Your task to perform on an android device: delete browsing data in the chrome app Image 0: 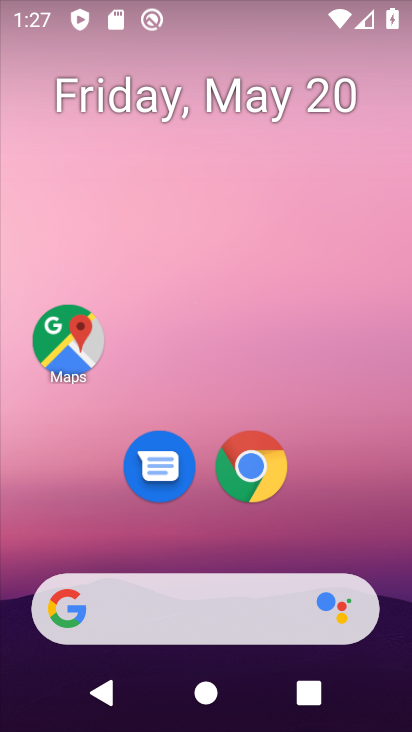
Step 0: drag from (231, 551) to (197, 3)
Your task to perform on an android device: delete browsing data in the chrome app Image 1: 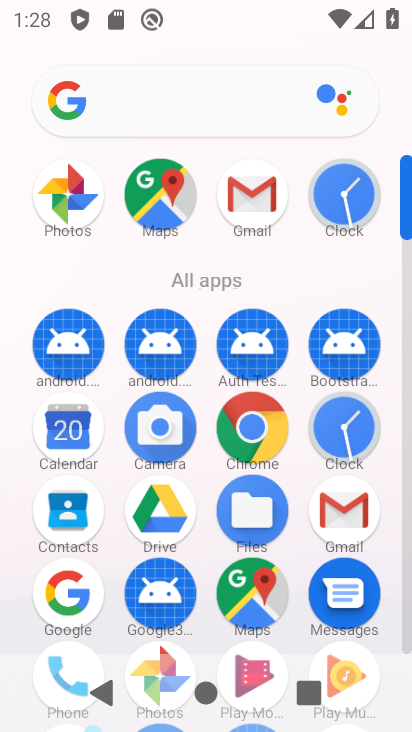
Step 1: click (251, 458)
Your task to perform on an android device: delete browsing data in the chrome app Image 2: 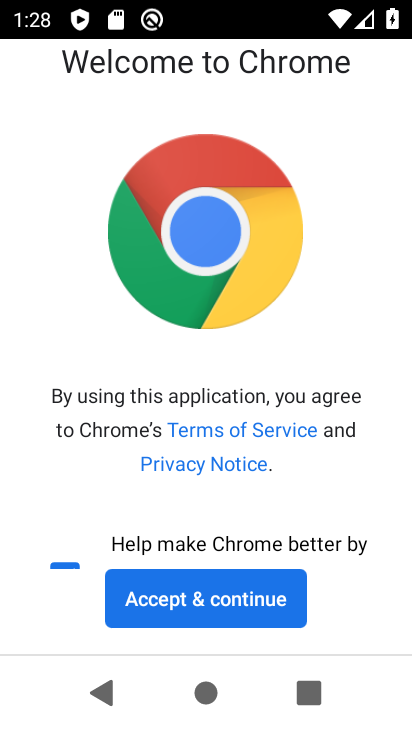
Step 2: click (200, 580)
Your task to perform on an android device: delete browsing data in the chrome app Image 3: 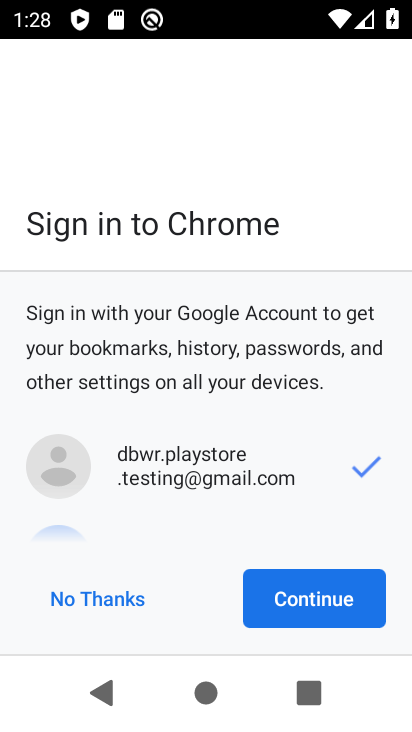
Step 3: click (290, 611)
Your task to perform on an android device: delete browsing data in the chrome app Image 4: 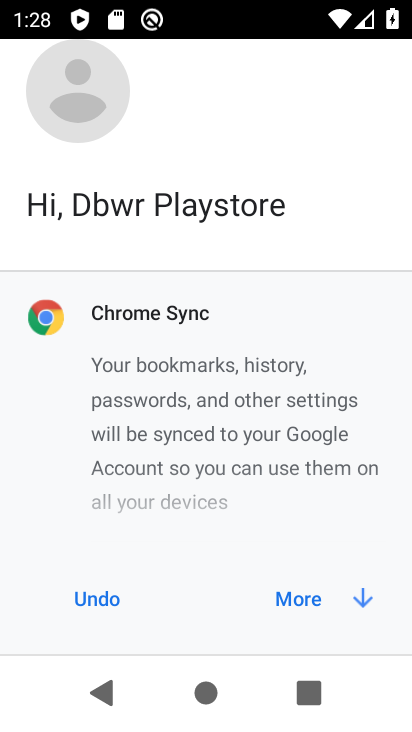
Step 4: click (304, 601)
Your task to perform on an android device: delete browsing data in the chrome app Image 5: 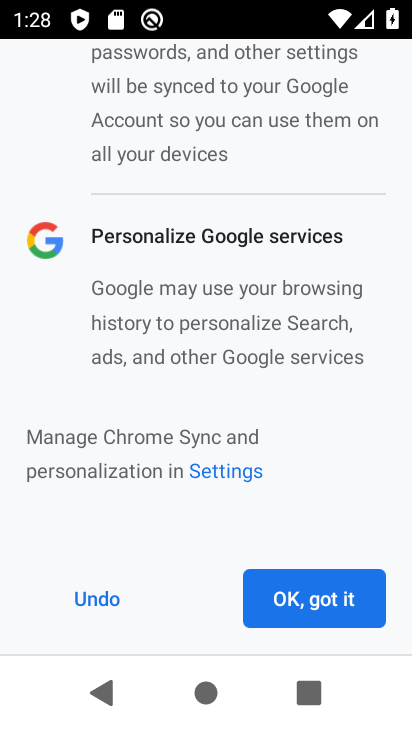
Step 5: click (304, 601)
Your task to perform on an android device: delete browsing data in the chrome app Image 6: 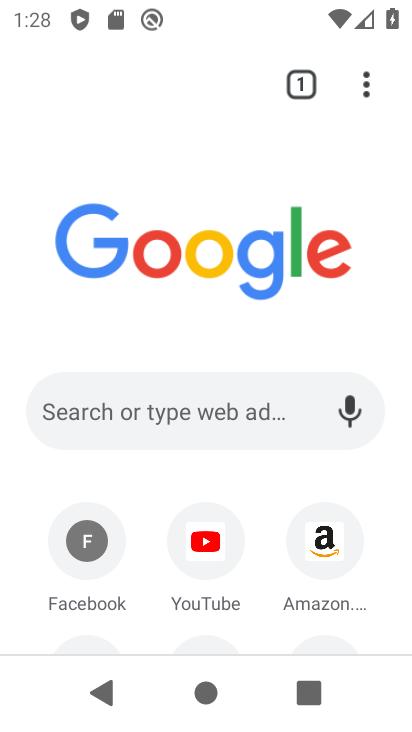
Step 6: click (365, 92)
Your task to perform on an android device: delete browsing data in the chrome app Image 7: 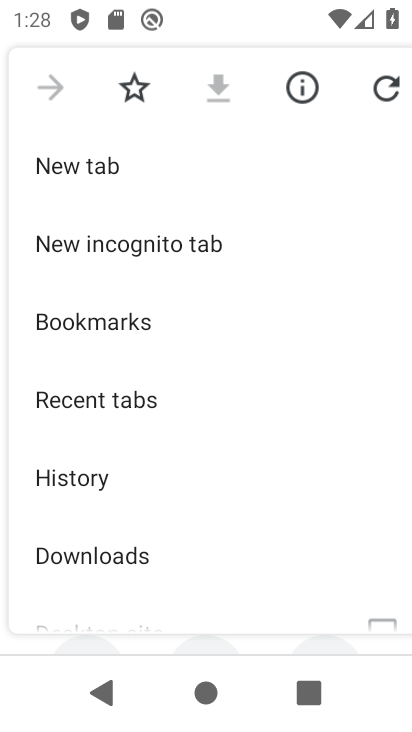
Step 7: click (75, 472)
Your task to perform on an android device: delete browsing data in the chrome app Image 8: 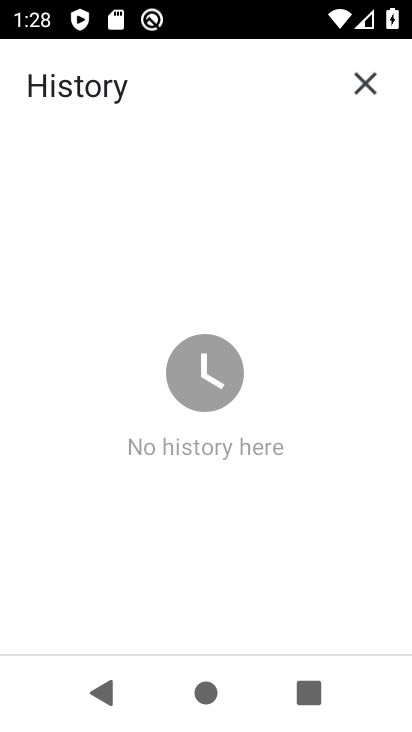
Step 8: click (75, 472)
Your task to perform on an android device: delete browsing data in the chrome app Image 9: 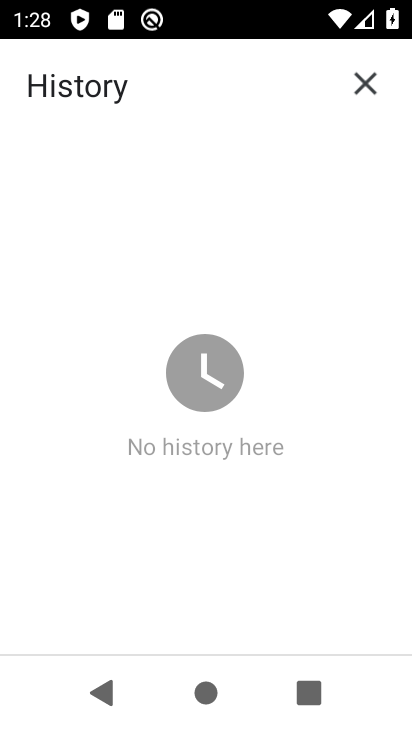
Step 9: task complete